Your task to perform on an android device: When is my next meeting? Image 0: 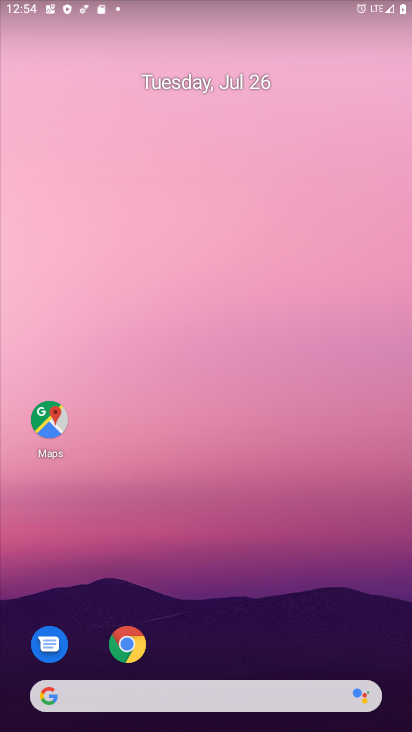
Step 0: drag from (105, 724) to (312, 3)
Your task to perform on an android device: When is my next meeting? Image 1: 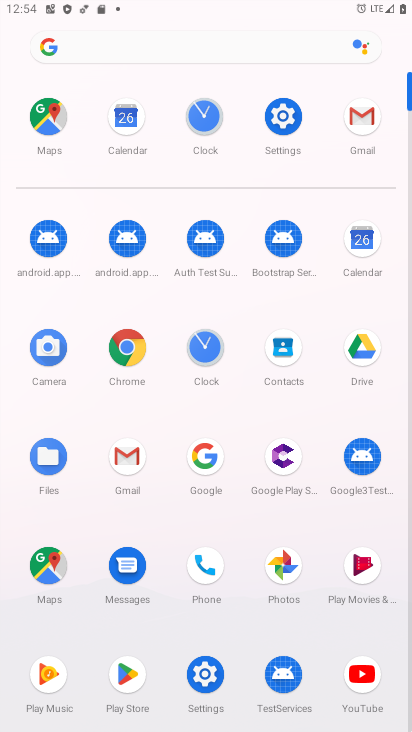
Step 1: click (363, 248)
Your task to perform on an android device: When is my next meeting? Image 2: 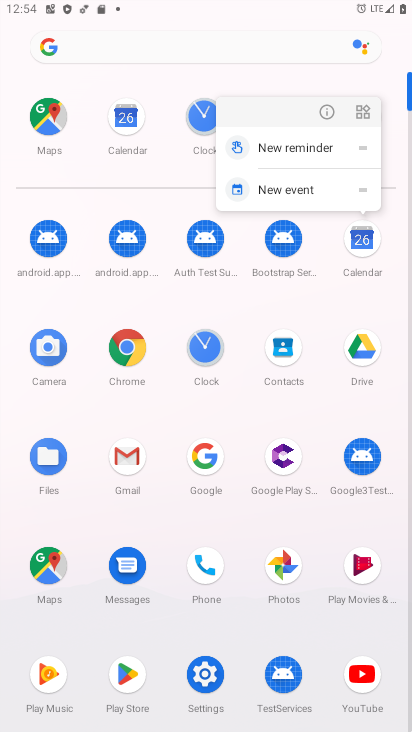
Step 2: click (365, 247)
Your task to perform on an android device: When is my next meeting? Image 3: 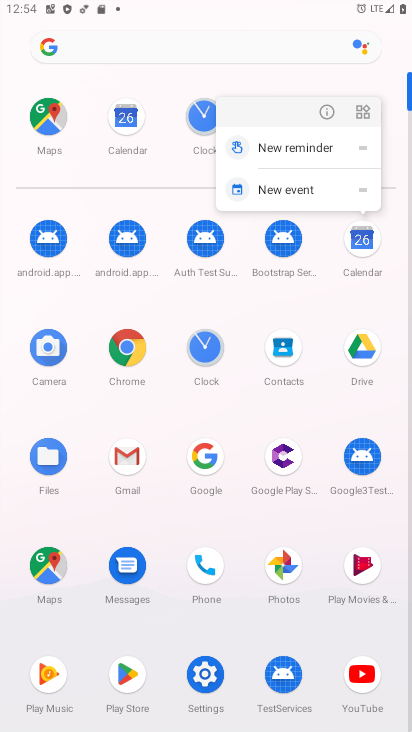
Step 3: click (365, 247)
Your task to perform on an android device: When is my next meeting? Image 4: 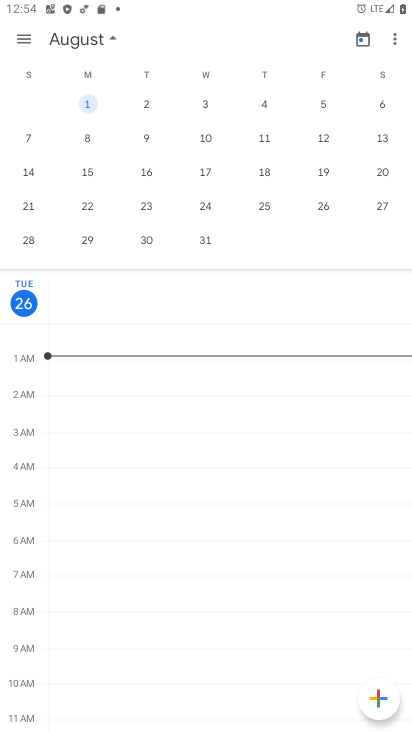
Step 4: drag from (51, 165) to (254, 211)
Your task to perform on an android device: When is my next meeting? Image 5: 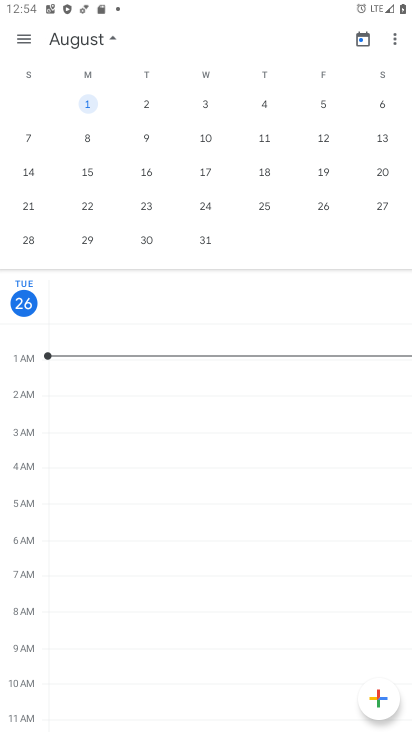
Step 5: drag from (57, 156) to (310, 124)
Your task to perform on an android device: When is my next meeting? Image 6: 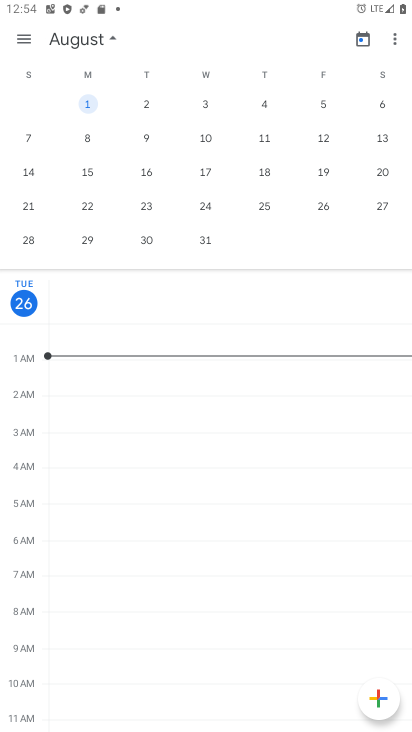
Step 6: drag from (26, 165) to (319, 64)
Your task to perform on an android device: When is my next meeting? Image 7: 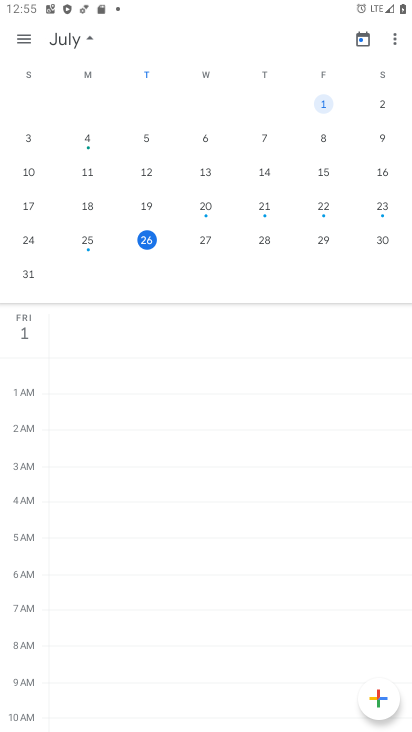
Step 7: click (24, 45)
Your task to perform on an android device: When is my next meeting? Image 8: 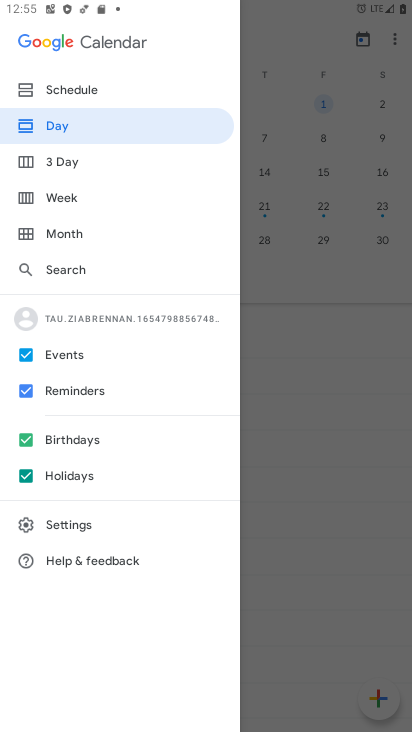
Step 8: click (65, 93)
Your task to perform on an android device: When is my next meeting? Image 9: 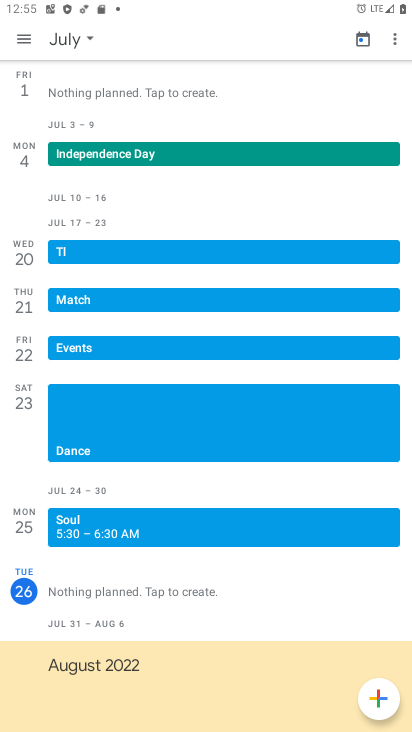
Step 9: task complete